Your task to perform on an android device: Go to network settings Image 0: 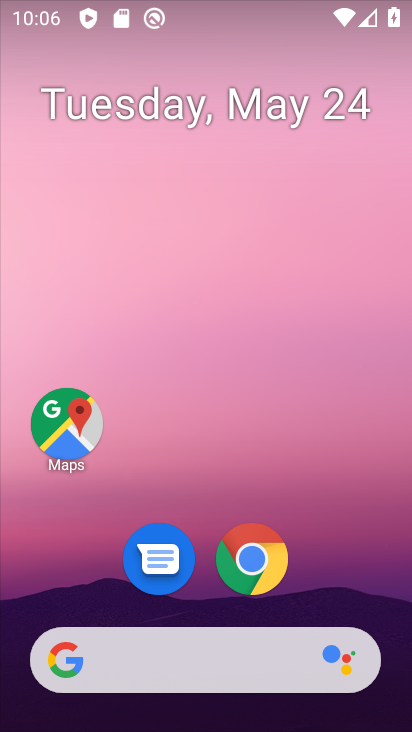
Step 0: drag from (189, 536) to (267, 37)
Your task to perform on an android device: Go to network settings Image 1: 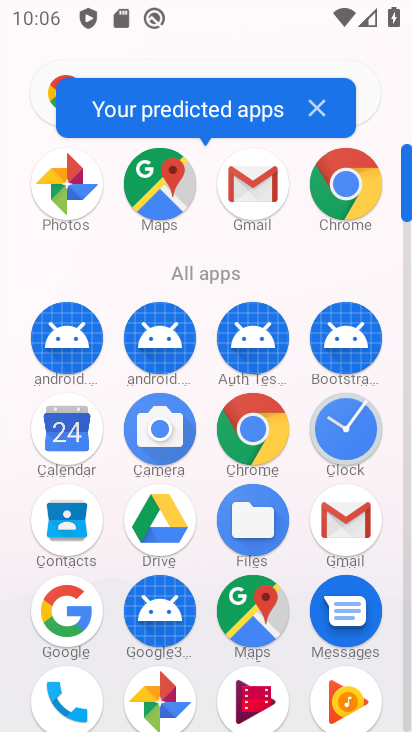
Step 1: drag from (233, 607) to (292, 157)
Your task to perform on an android device: Go to network settings Image 2: 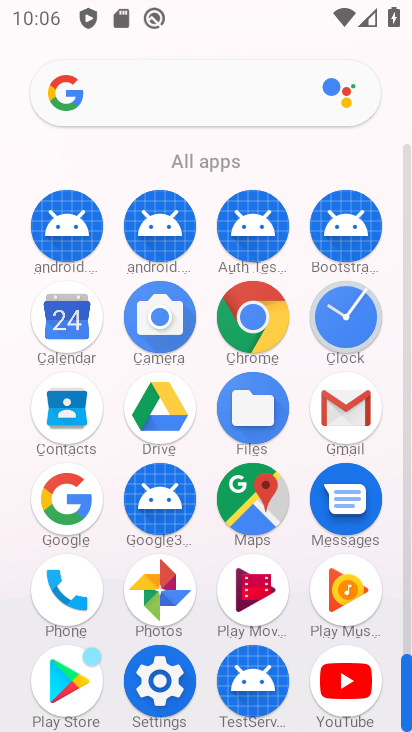
Step 2: click (162, 702)
Your task to perform on an android device: Go to network settings Image 3: 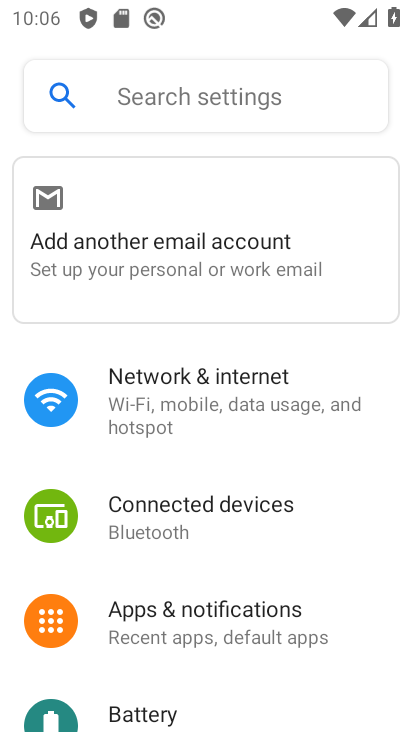
Step 3: click (211, 388)
Your task to perform on an android device: Go to network settings Image 4: 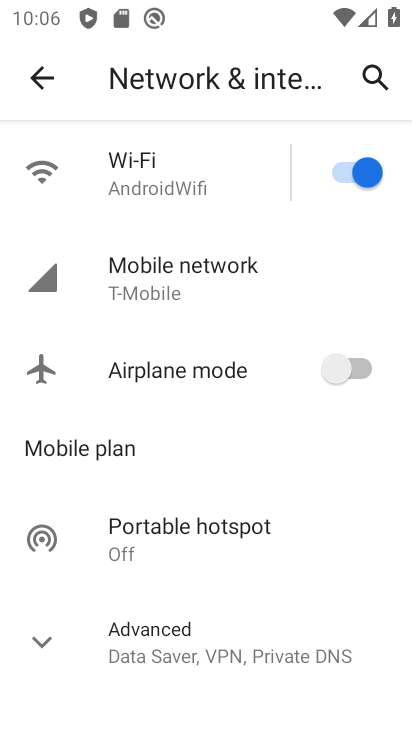
Step 4: task complete